Your task to perform on an android device: turn on the 12-hour format for clock Image 0: 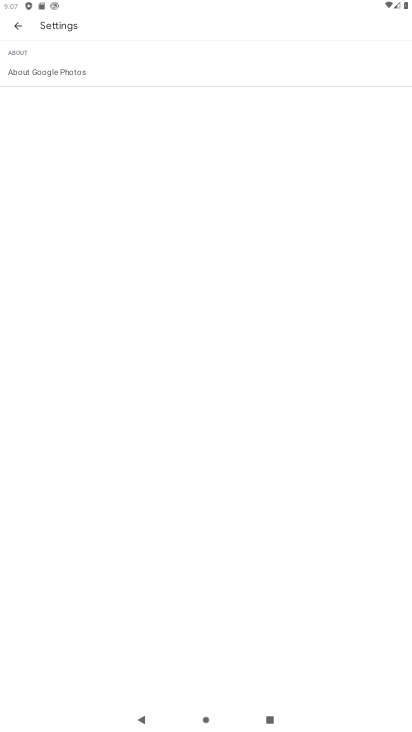
Step 0: press home button
Your task to perform on an android device: turn on the 12-hour format for clock Image 1: 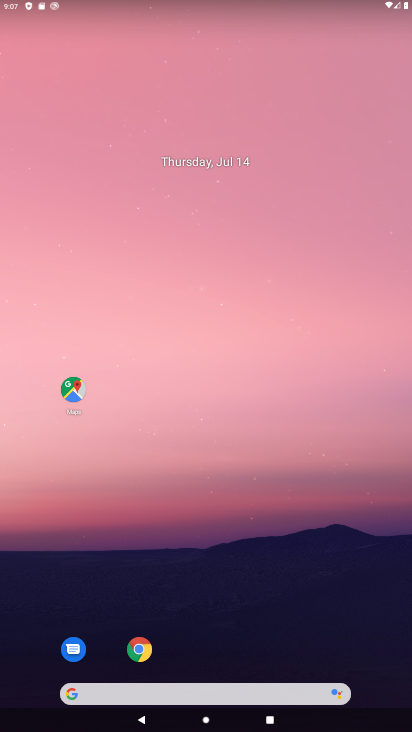
Step 1: drag from (230, 628) to (239, 141)
Your task to perform on an android device: turn on the 12-hour format for clock Image 2: 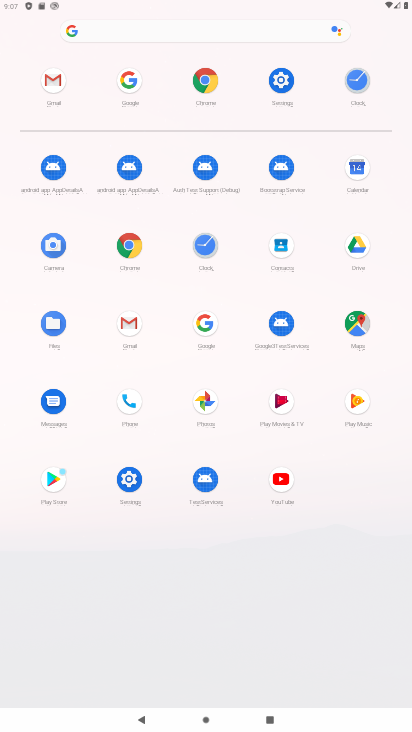
Step 2: click (209, 260)
Your task to perform on an android device: turn on the 12-hour format for clock Image 3: 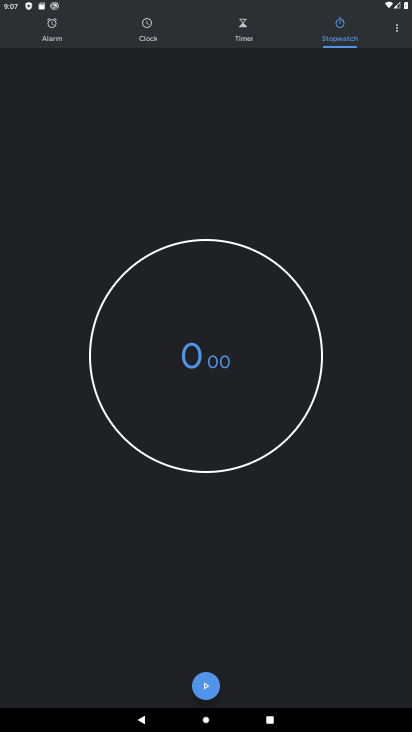
Step 3: click (393, 25)
Your task to perform on an android device: turn on the 12-hour format for clock Image 4: 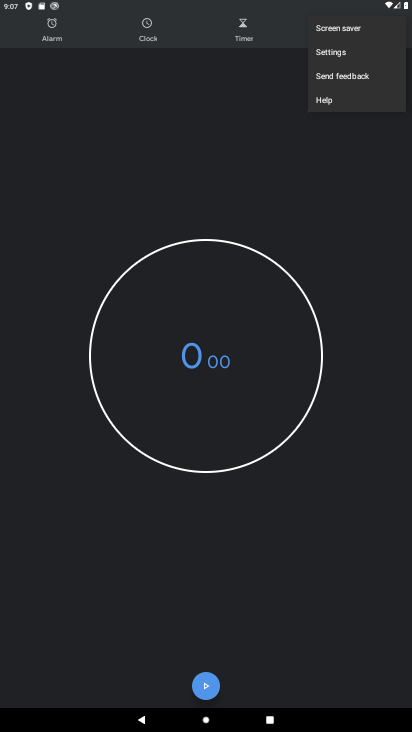
Step 4: click (357, 52)
Your task to perform on an android device: turn on the 12-hour format for clock Image 5: 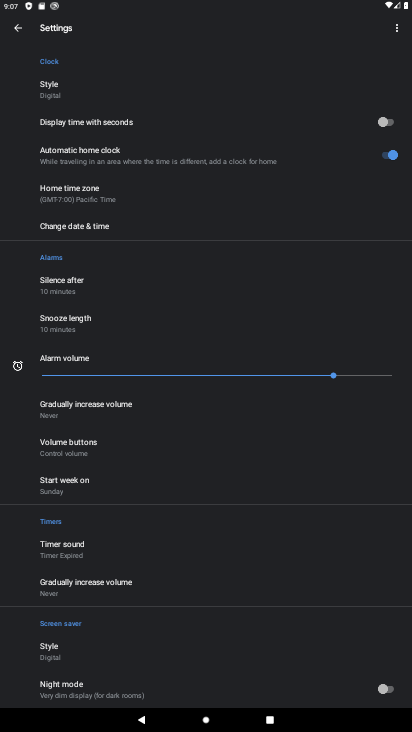
Step 5: click (69, 225)
Your task to perform on an android device: turn on the 12-hour format for clock Image 6: 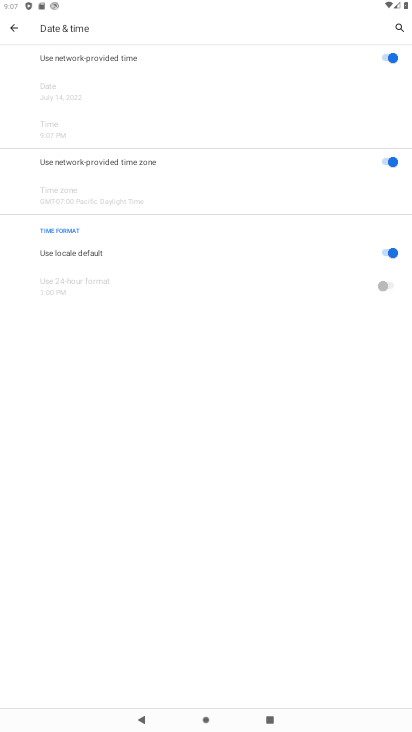
Step 6: task complete